Your task to perform on an android device: turn off smart reply in the gmail app Image 0: 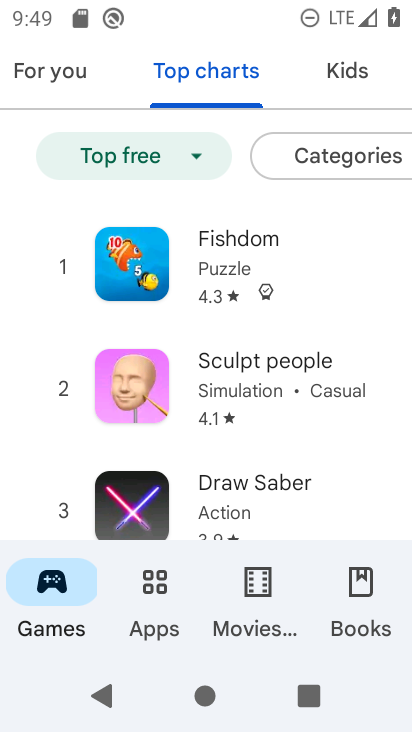
Step 0: press home button
Your task to perform on an android device: turn off smart reply in the gmail app Image 1: 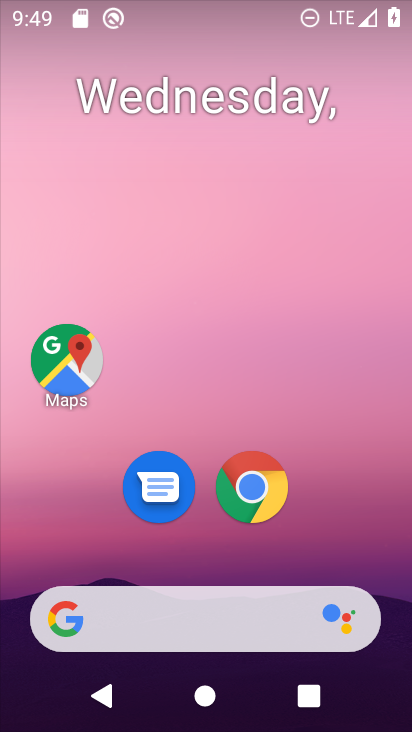
Step 1: drag from (333, 522) to (216, 20)
Your task to perform on an android device: turn off smart reply in the gmail app Image 2: 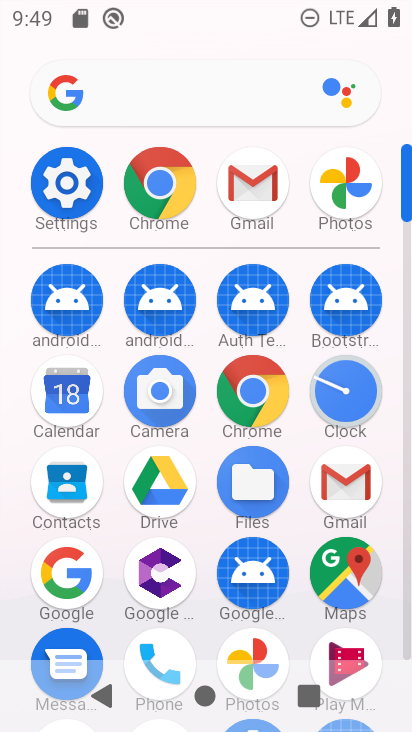
Step 2: click (250, 191)
Your task to perform on an android device: turn off smart reply in the gmail app Image 3: 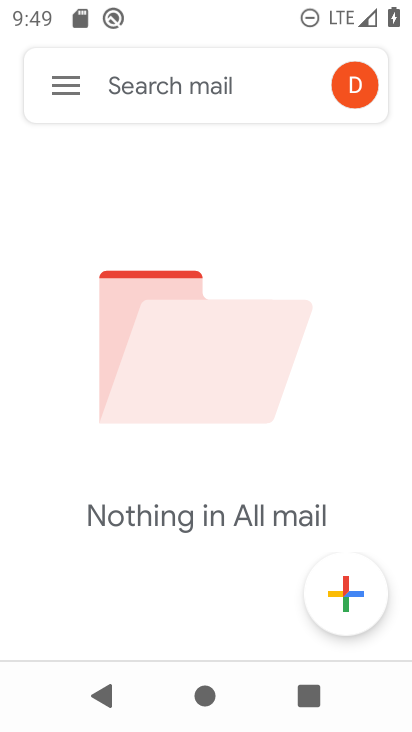
Step 3: click (71, 73)
Your task to perform on an android device: turn off smart reply in the gmail app Image 4: 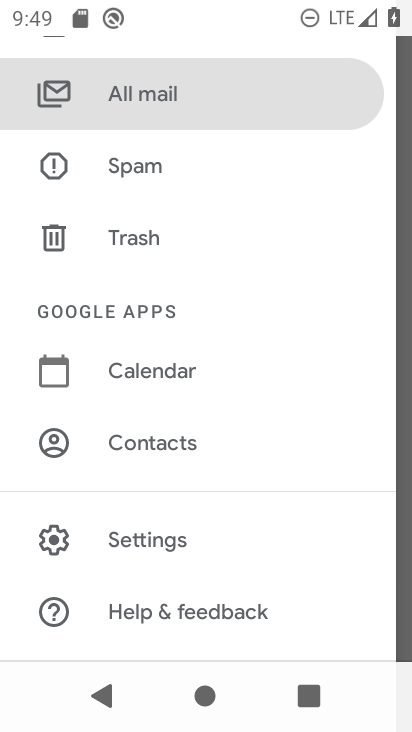
Step 4: click (140, 539)
Your task to perform on an android device: turn off smart reply in the gmail app Image 5: 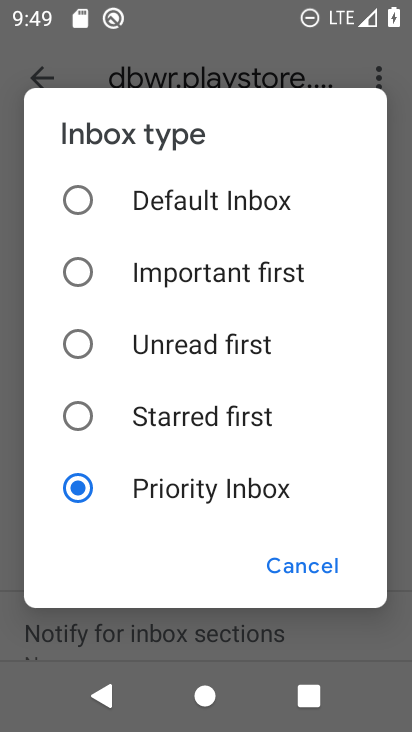
Step 5: click (306, 570)
Your task to perform on an android device: turn off smart reply in the gmail app Image 6: 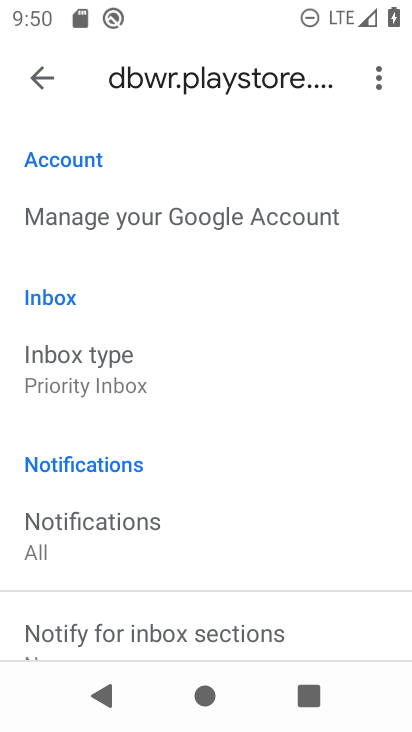
Step 6: task complete